Your task to perform on an android device: open a bookmark in the chrome app Image 0: 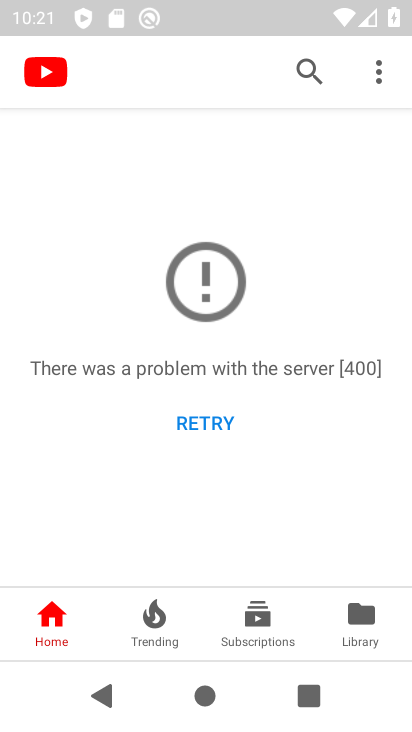
Step 0: press back button
Your task to perform on an android device: open a bookmark in the chrome app Image 1: 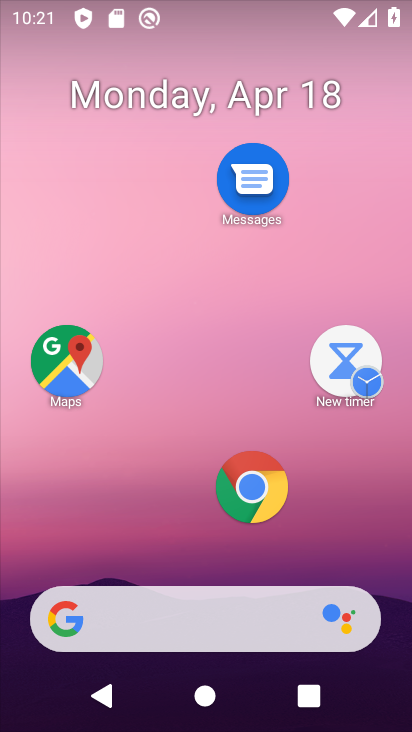
Step 1: drag from (133, 553) to (188, 323)
Your task to perform on an android device: open a bookmark in the chrome app Image 2: 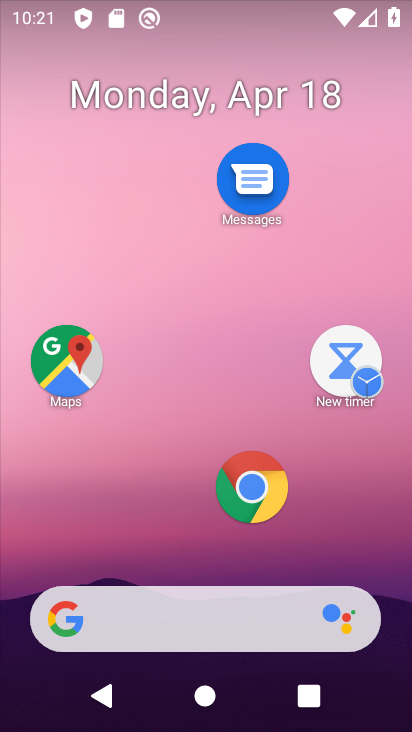
Step 2: click (241, 485)
Your task to perform on an android device: open a bookmark in the chrome app Image 3: 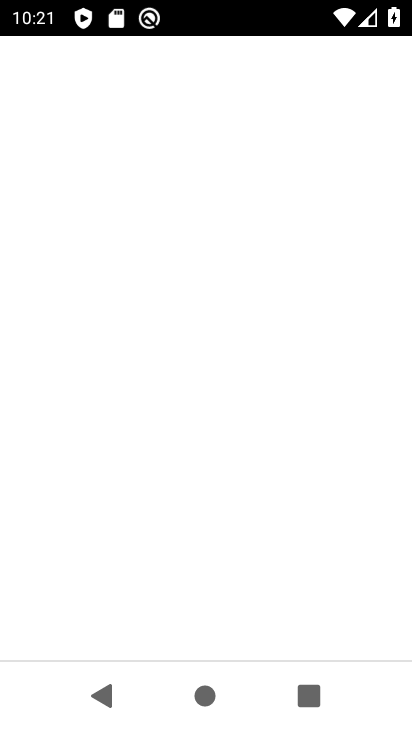
Step 3: click (243, 477)
Your task to perform on an android device: open a bookmark in the chrome app Image 4: 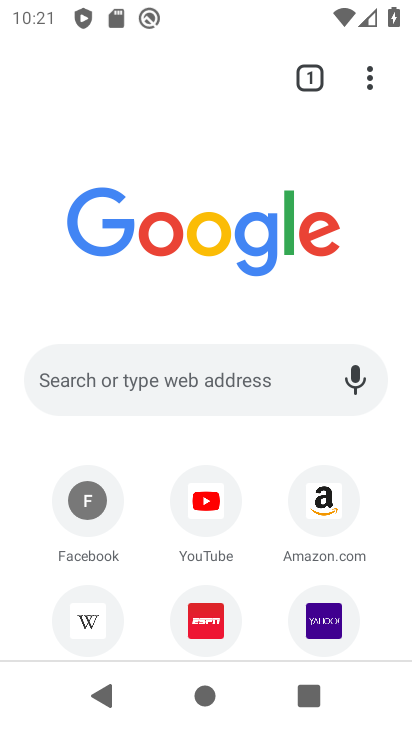
Step 4: click (372, 83)
Your task to perform on an android device: open a bookmark in the chrome app Image 5: 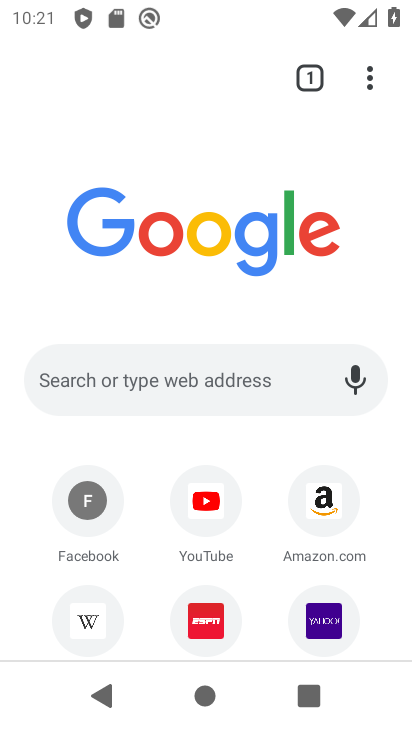
Step 5: task complete